Your task to perform on an android device: Play the last video I watched on Youtube Image 0: 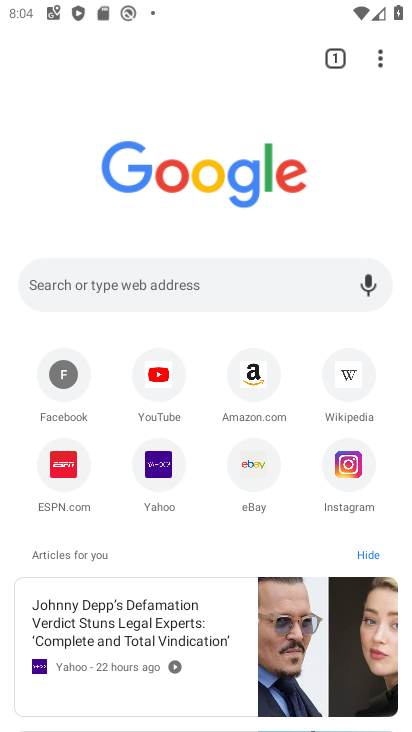
Step 0: press home button
Your task to perform on an android device: Play the last video I watched on Youtube Image 1: 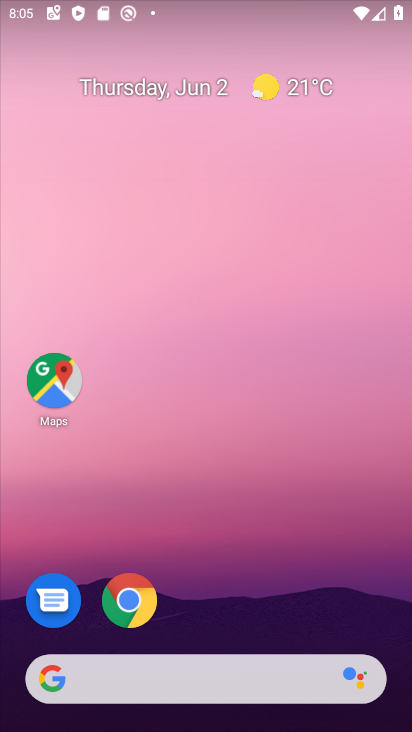
Step 1: drag from (362, 580) to (370, 173)
Your task to perform on an android device: Play the last video I watched on Youtube Image 2: 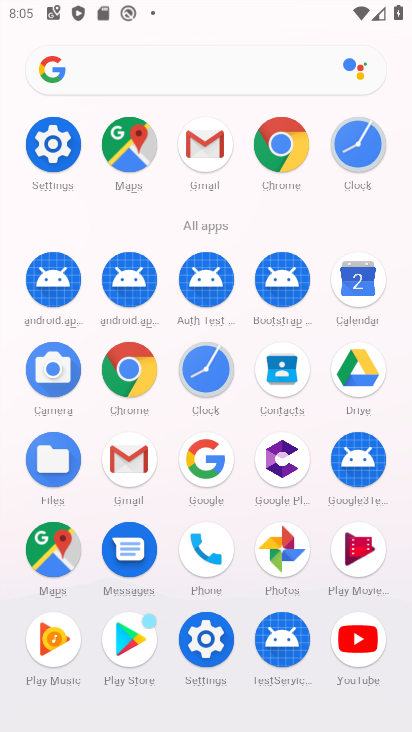
Step 2: click (376, 634)
Your task to perform on an android device: Play the last video I watched on Youtube Image 3: 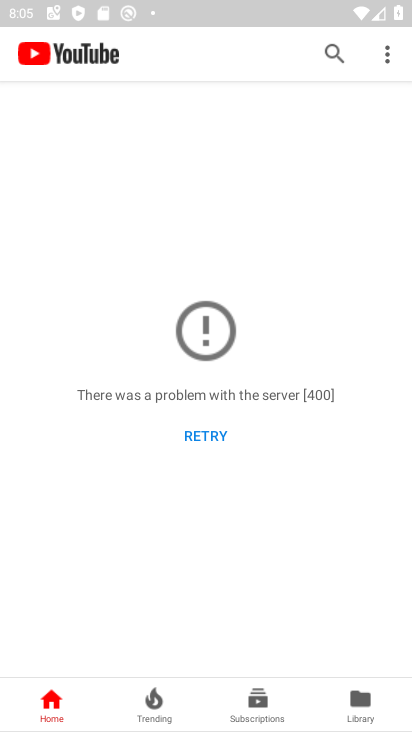
Step 3: click (357, 721)
Your task to perform on an android device: Play the last video I watched on Youtube Image 4: 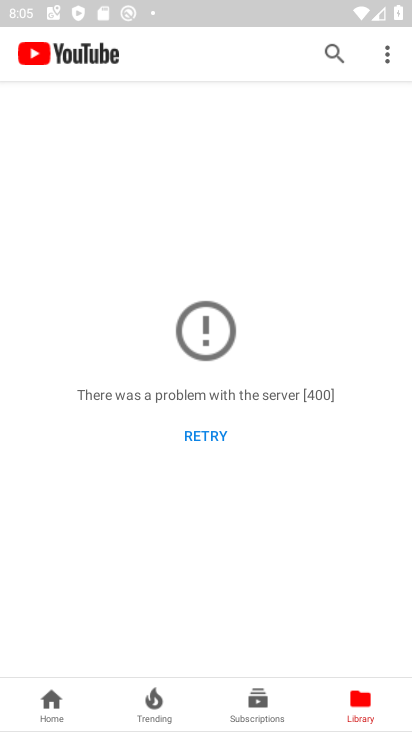
Step 4: task complete